Your task to perform on an android device: Open maps Image 0: 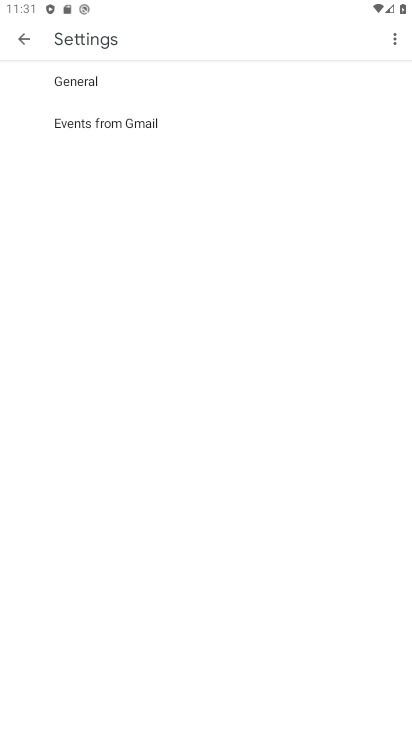
Step 0: press home button
Your task to perform on an android device: Open maps Image 1: 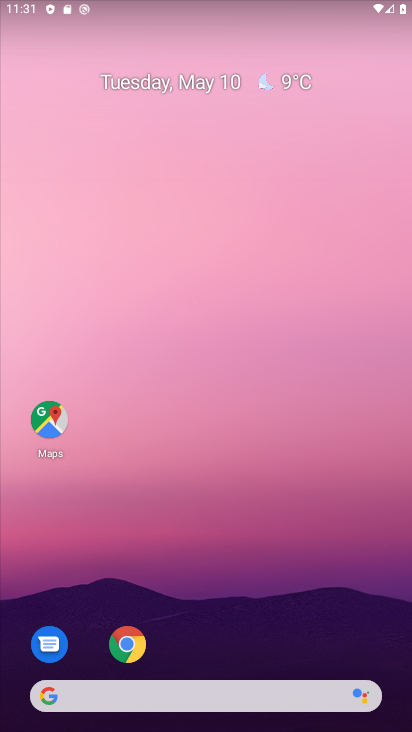
Step 1: click (34, 426)
Your task to perform on an android device: Open maps Image 2: 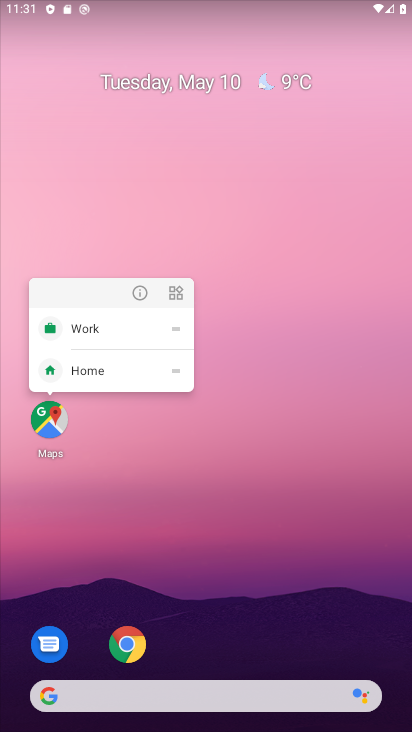
Step 2: click (34, 426)
Your task to perform on an android device: Open maps Image 3: 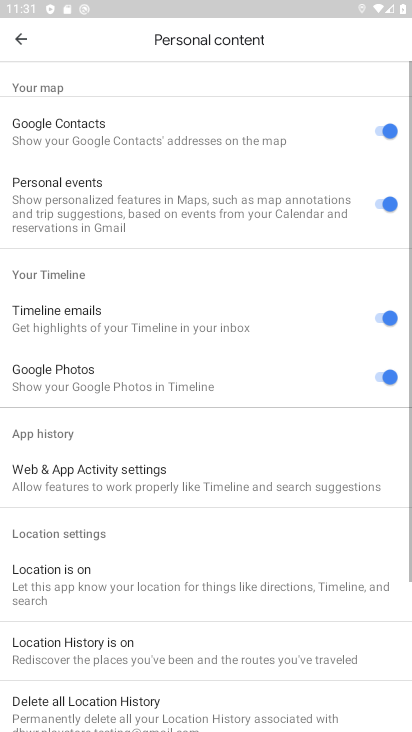
Step 3: click (32, 41)
Your task to perform on an android device: Open maps Image 4: 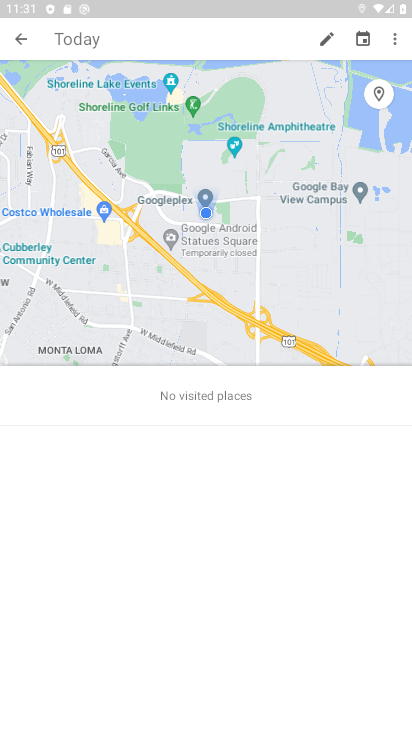
Step 4: click (23, 35)
Your task to perform on an android device: Open maps Image 5: 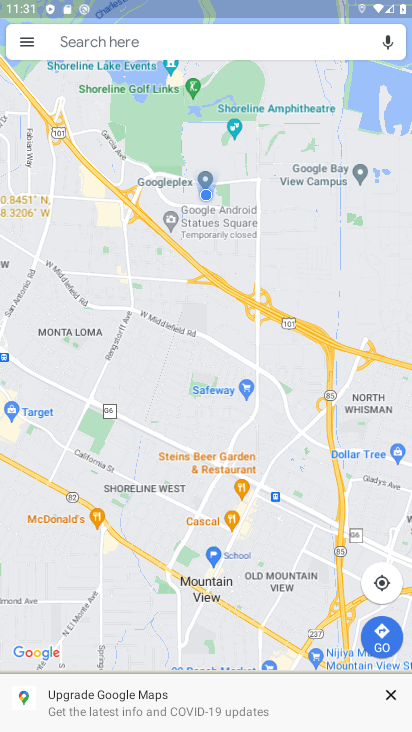
Step 5: task complete